Your task to perform on an android device: toggle translation in the chrome app Image 0: 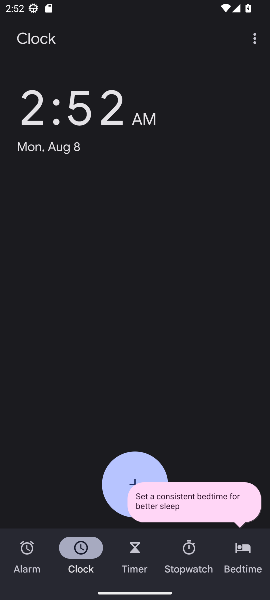
Step 0: drag from (163, 531) to (145, 190)
Your task to perform on an android device: toggle translation in the chrome app Image 1: 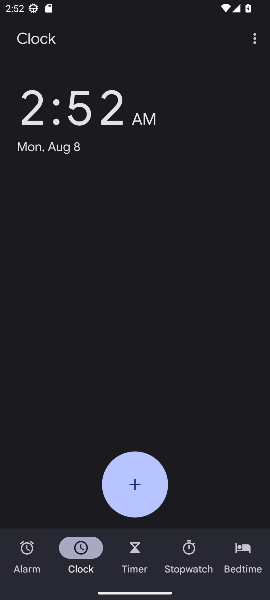
Step 1: drag from (137, 451) to (110, 204)
Your task to perform on an android device: toggle translation in the chrome app Image 2: 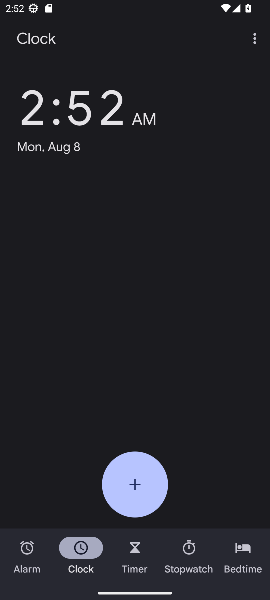
Step 2: drag from (151, 447) to (151, 5)
Your task to perform on an android device: toggle translation in the chrome app Image 3: 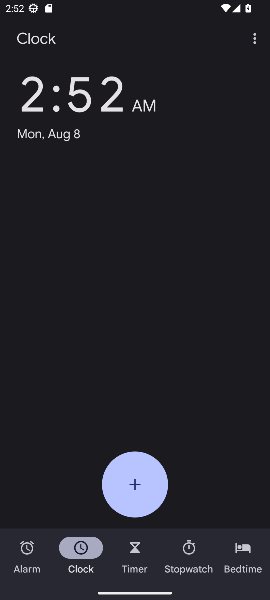
Step 3: drag from (160, 372) to (121, 75)
Your task to perform on an android device: toggle translation in the chrome app Image 4: 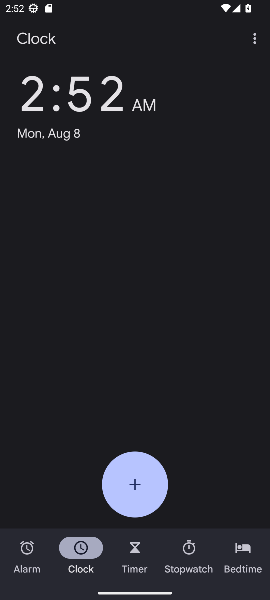
Step 4: drag from (186, 443) to (145, 89)
Your task to perform on an android device: toggle translation in the chrome app Image 5: 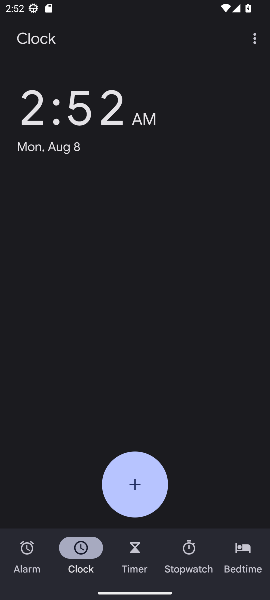
Step 5: press back button
Your task to perform on an android device: toggle translation in the chrome app Image 6: 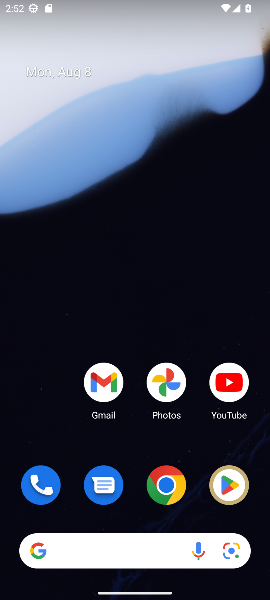
Step 6: drag from (179, 534) to (109, 72)
Your task to perform on an android device: toggle translation in the chrome app Image 7: 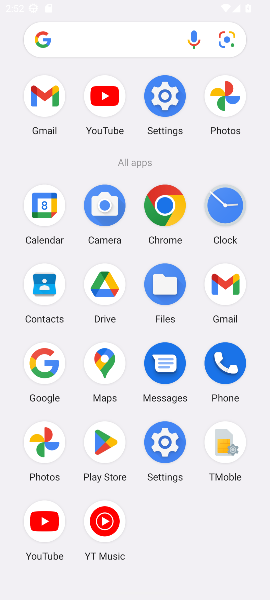
Step 7: drag from (143, 394) to (103, 7)
Your task to perform on an android device: toggle translation in the chrome app Image 8: 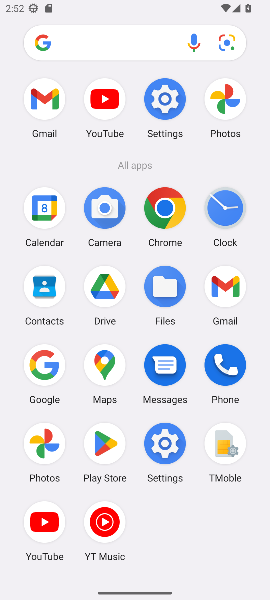
Step 8: click (174, 210)
Your task to perform on an android device: toggle translation in the chrome app Image 9: 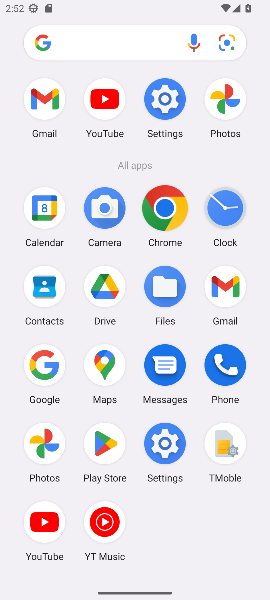
Step 9: click (174, 210)
Your task to perform on an android device: toggle translation in the chrome app Image 10: 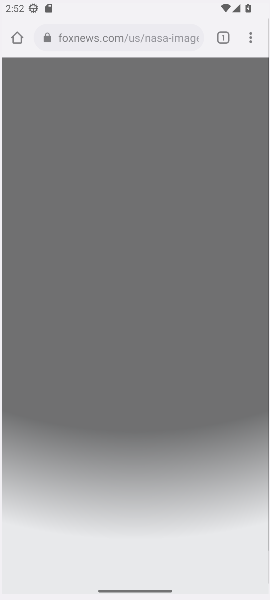
Step 10: click (173, 210)
Your task to perform on an android device: toggle translation in the chrome app Image 11: 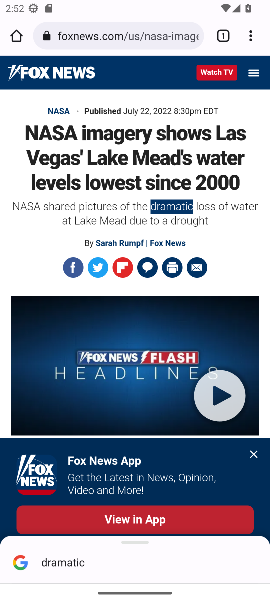
Step 11: click (249, 37)
Your task to perform on an android device: toggle translation in the chrome app Image 12: 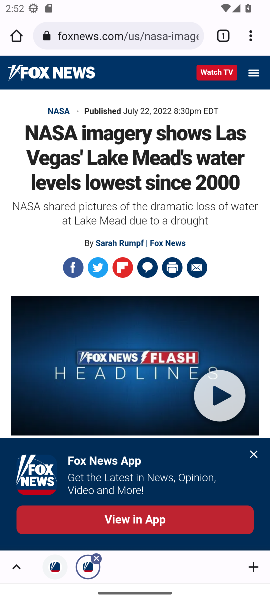
Step 12: click (248, 33)
Your task to perform on an android device: toggle translation in the chrome app Image 13: 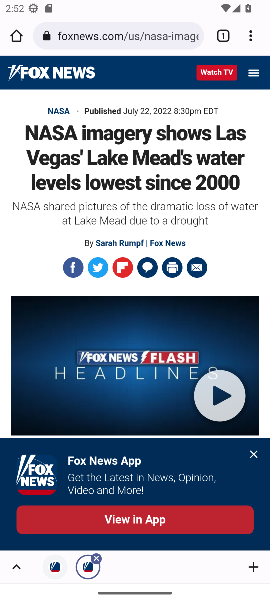
Step 13: click (248, 37)
Your task to perform on an android device: toggle translation in the chrome app Image 14: 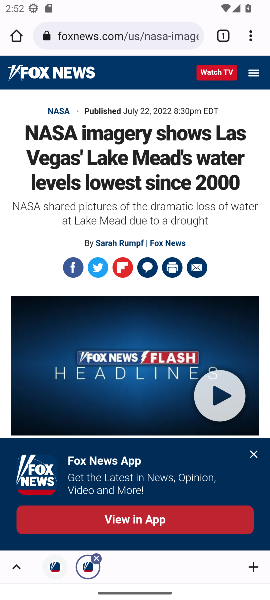
Step 14: click (248, 37)
Your task to perform on an android device: toggle translation in the chrome app Image 15: 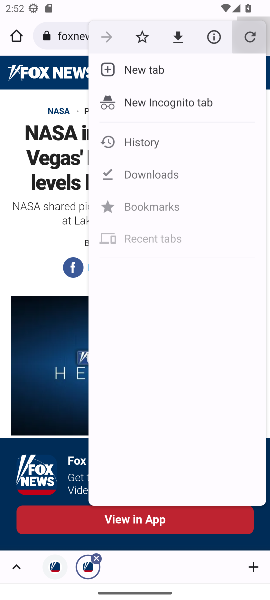
Step 15: click (247, 36)
Your task to perform on an android device: toggle translation in the chrome app Image 16: 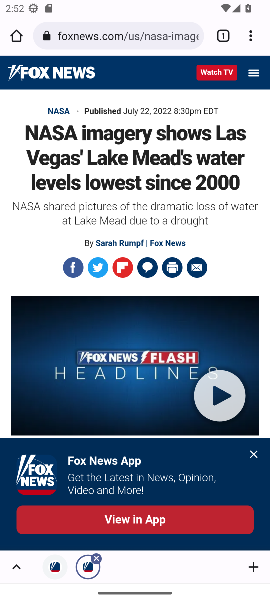
Step 16: click (243, 38)
Your task to perform on an android device: toggle translation in the chrome app Image 17: 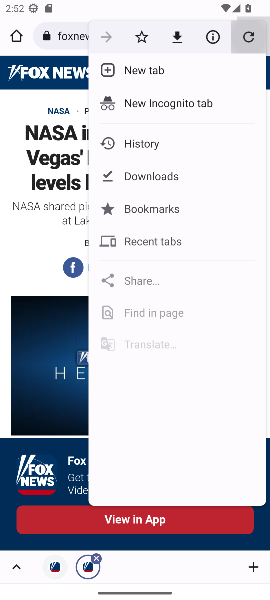
Step 17: click (243, 38)
Your task to perform on an android device: toggle translation in the chrome app Image 18: 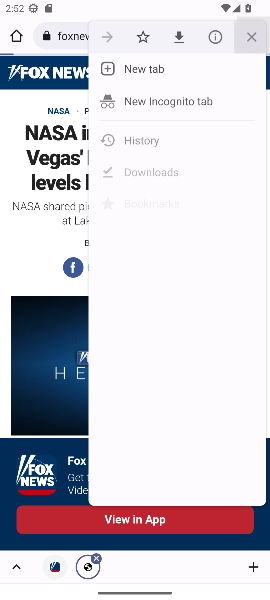
Step 18: click (243, 38)
Your task to perform on an android device: toggle translation in the chrome app Image 19: 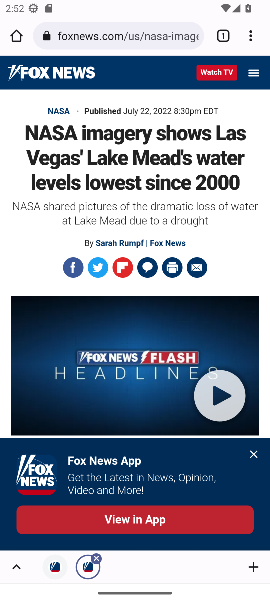
Step 19: click (248, 39)
Your task to perform on an android device: toggle translation in the chrome app Image 20: 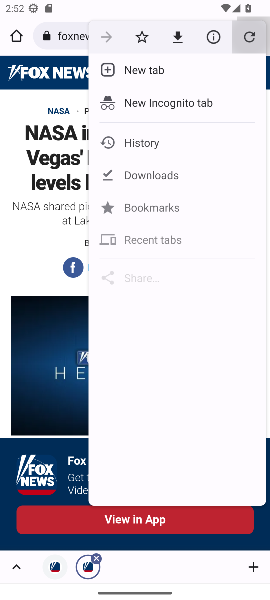
Step 20: click (248, 39)
Your task to perform on an android device: toggle translation in the chrome app Image 21: 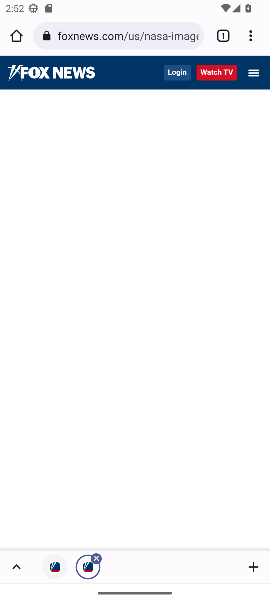
Step 21: drag from (222, 145) to (182, 336)
Your task to perform on an android device: toggle translation in the chrome app Image 22: 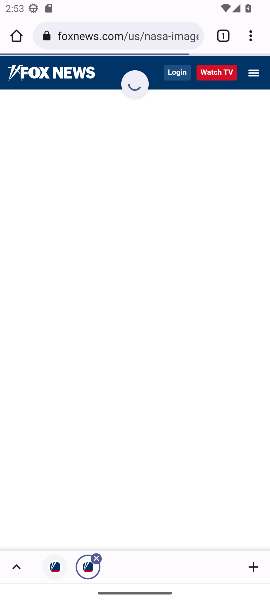
Step 22: drag from (249, 34) to (148, 456)
Your task to perform on an android device: toggle translation in the chrome app Image 23: 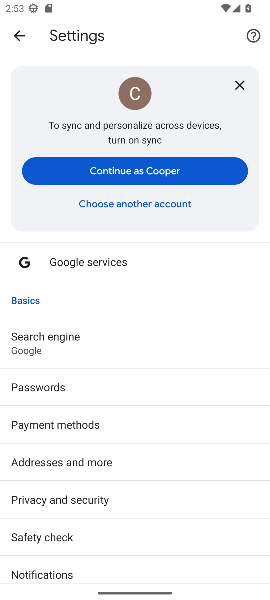
Step 23: drag from (58, 501) to (25, 219)
Your task to perform on an android device: toggle translation in the chrome app Image 24: 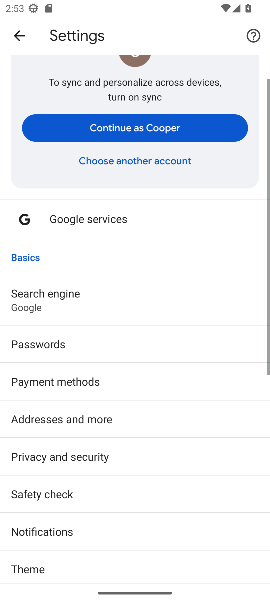
Step 24: drag from (37, 482) to (30, 259)
Your task to perform on an android device: toggle translation in the chrome app Image 25: 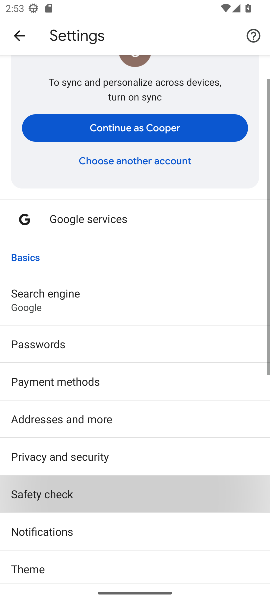
Step 25: drag from (90, 417) to (90, 261)
Your task to perform on an android device: toggle translation in the chrome app Image 26: 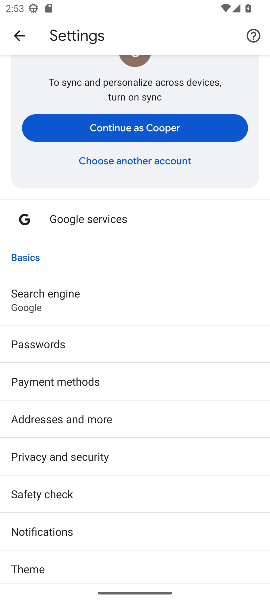
Step 26: drag from (78, 518) to (43, 255)
Your task to perform on an android device: toggle translation in the chrome app Image 27: 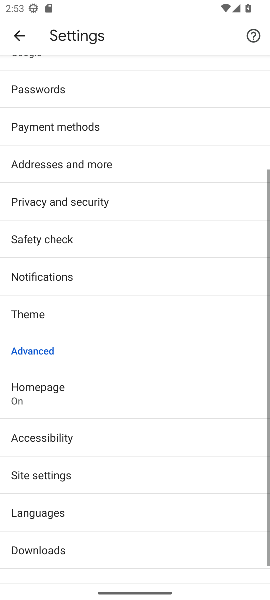
Step 27: drag from (40, 469) to (30, 287)
Your task to perform on an android device: toggle translation in the chrome app Image 28: 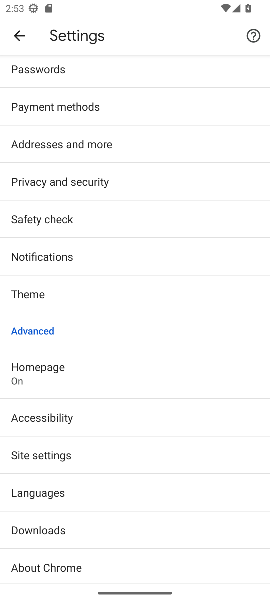
Step 28: click (42, 498)
Your task to perform on an android device: toggle translation in the chrome app Image 29: 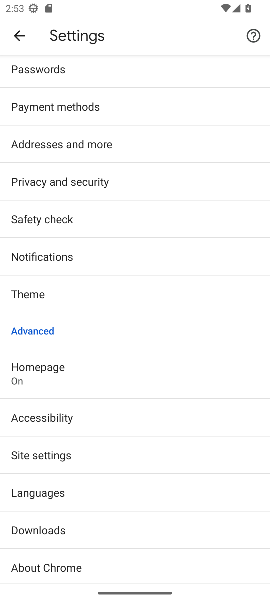
Step 29: click (42, 498)
Your task to perform on an android device: toggle translation in the chrome app Image 30: 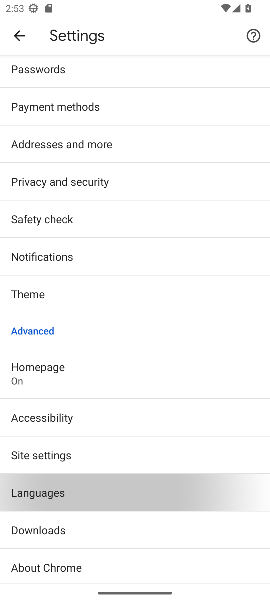
Step 30: click (42, 498)
Your task to perform on an android device: toggle translation in the chrome app Image 31: 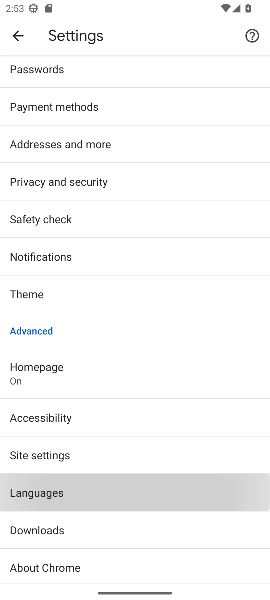
Step 31: click (42, 498)
Your task to perform on an android device: toggle translation in the chrome app Image 32: 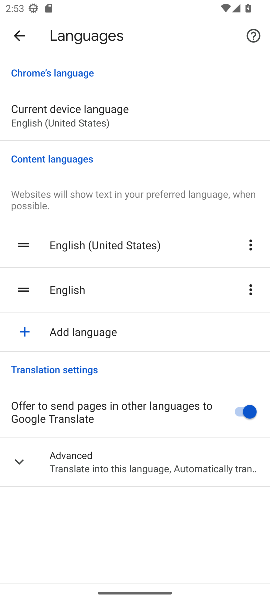
Step 32: click (243, 408)
Your task to perform on an android device: toggle translation in the chrome app Image 33: 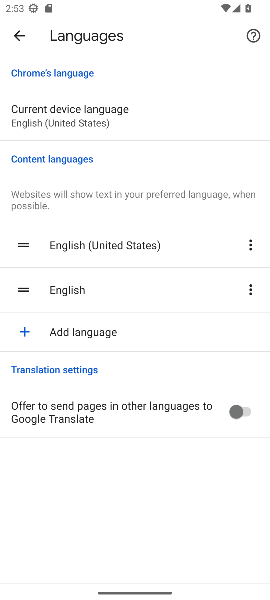
Step 33: task complete